Your task to perform on an android device: turn off airplane mode Image 0: 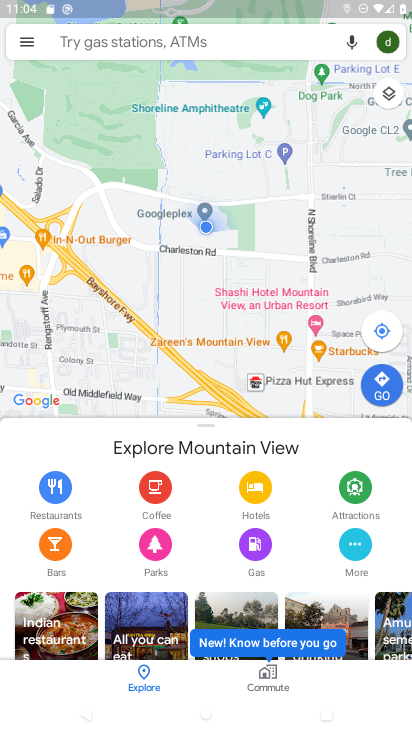
Step 0: press home button
Your task to perform on an android device: turn off airplane mode Image 1: 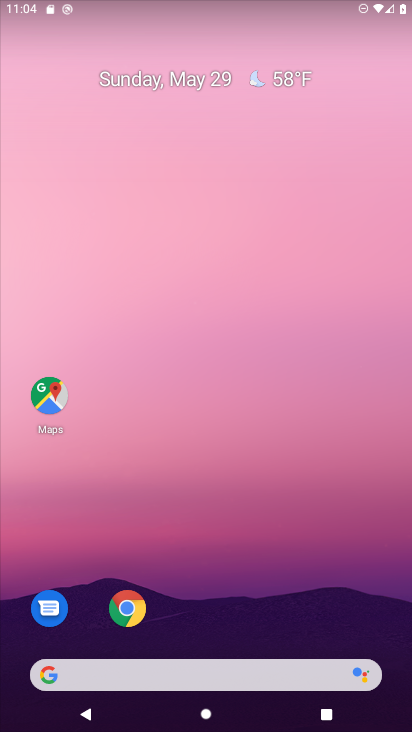
Step 1: task complete